Your task to perform on an android device: see sites visited before in the chrome app Image 0: 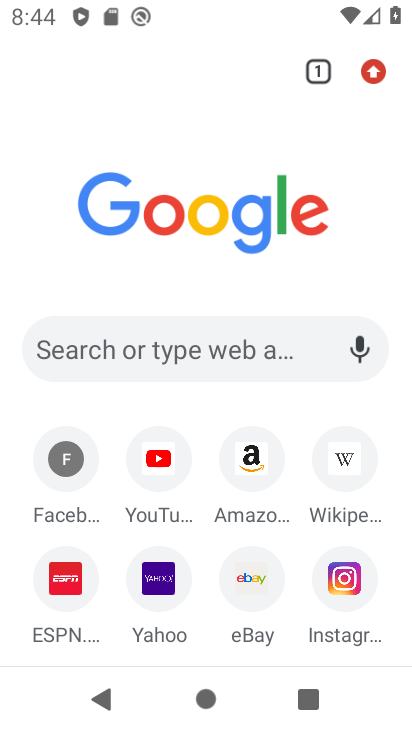
Step 0: press home button
Your task to perform on an android device: see sites visited before in the chrome app Image 1: 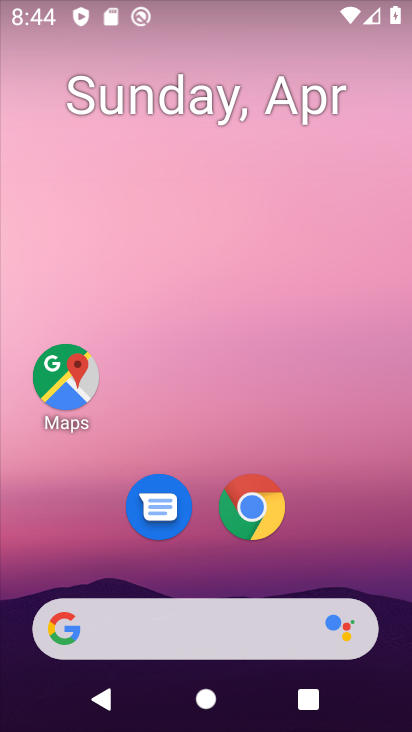
Step 1: click (258, 517)
Your task to perform on an android device: see sites visited before in the chrome app Image 2: 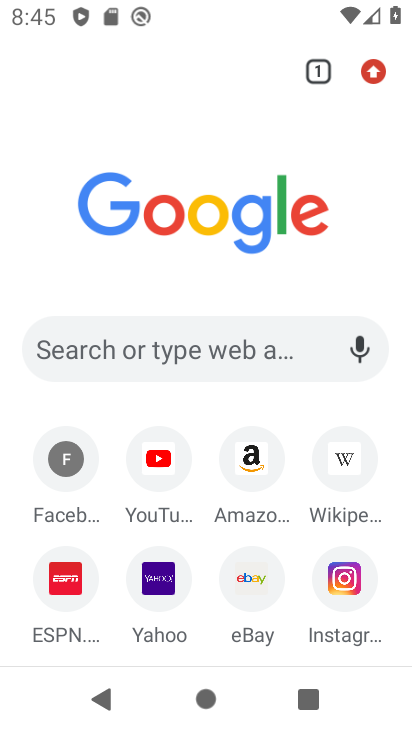
Step 2: click (375, 78)
Your task to perform on an android device: see sites visited before in the chrome app Image 3: 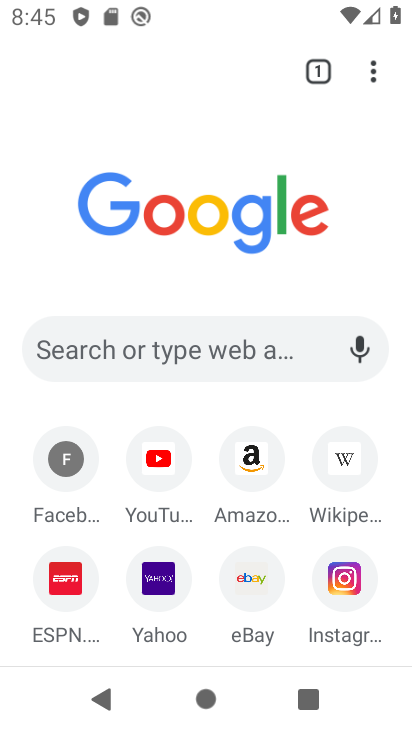
Step 3: click (368, 80)
Your task to perform on an android device: see sites visited before in the chrome app Image 4: 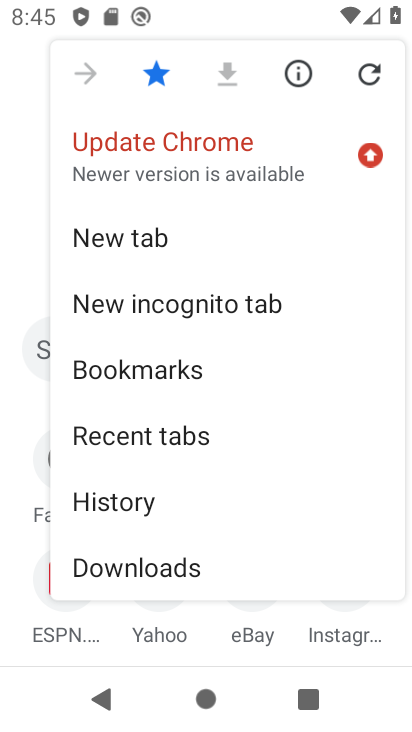
Step 4: click (142, 491)
Your task to perform on an android device: see sites visited before in the chrome app Image 5: 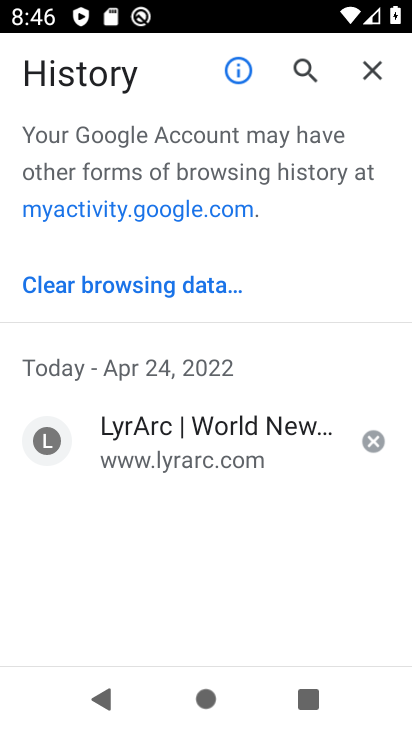
Step 5: task complete